Your task to perform on an android device: Open the Play Movies app and select the watchlist tab. Image 0: 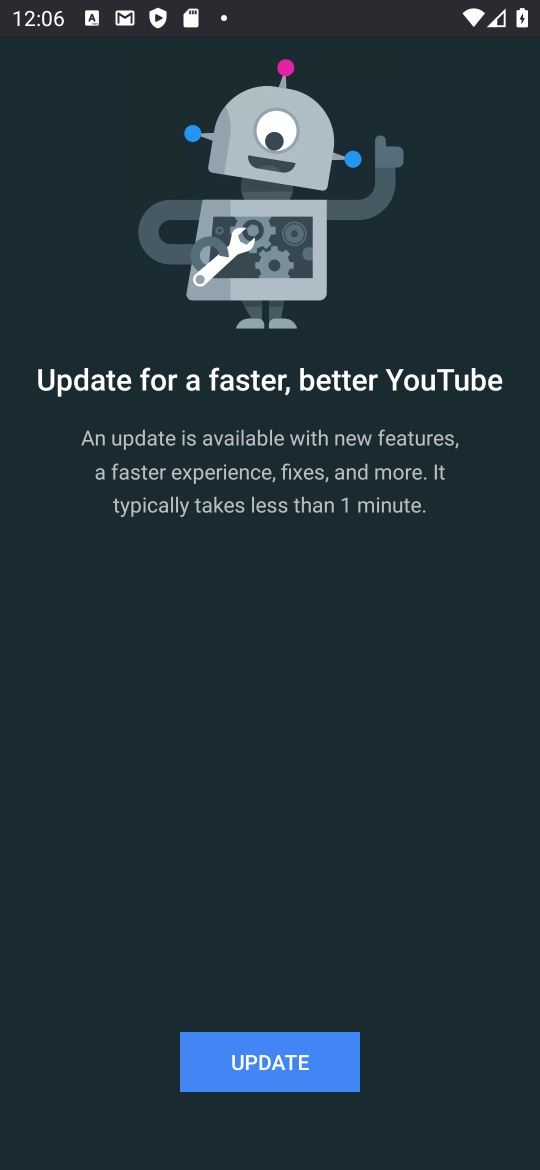
Step 0: press home button
Your task to perform on an android device: Open the Play Movies app and select the watchlist tab. Image 1: 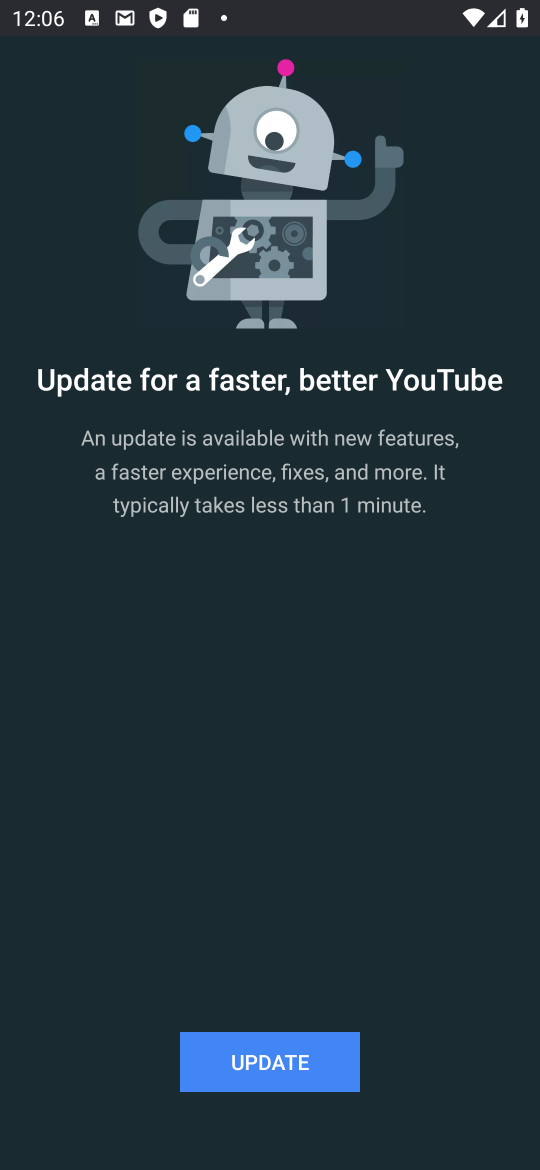
Step 1: press home button
Your task to perform on an android device: Open the Play Movies app and select the watchlist tab. Image 2: 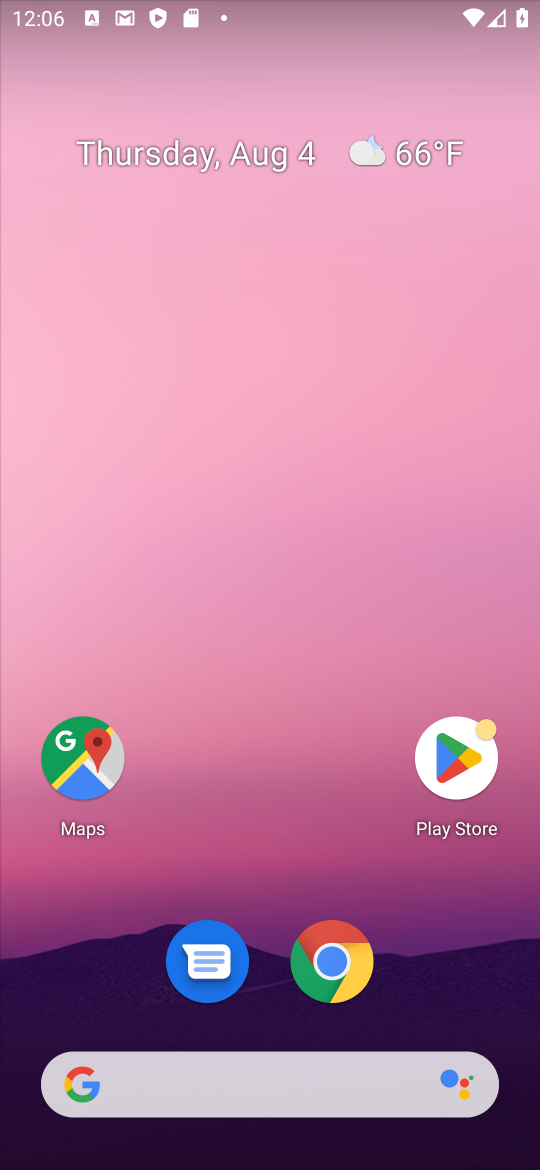
Step 2: drag from (307, 805) to (313, 142)
Your task to perform on an android device: Open the Play Movies app and select the watchlist tab. Image 3: 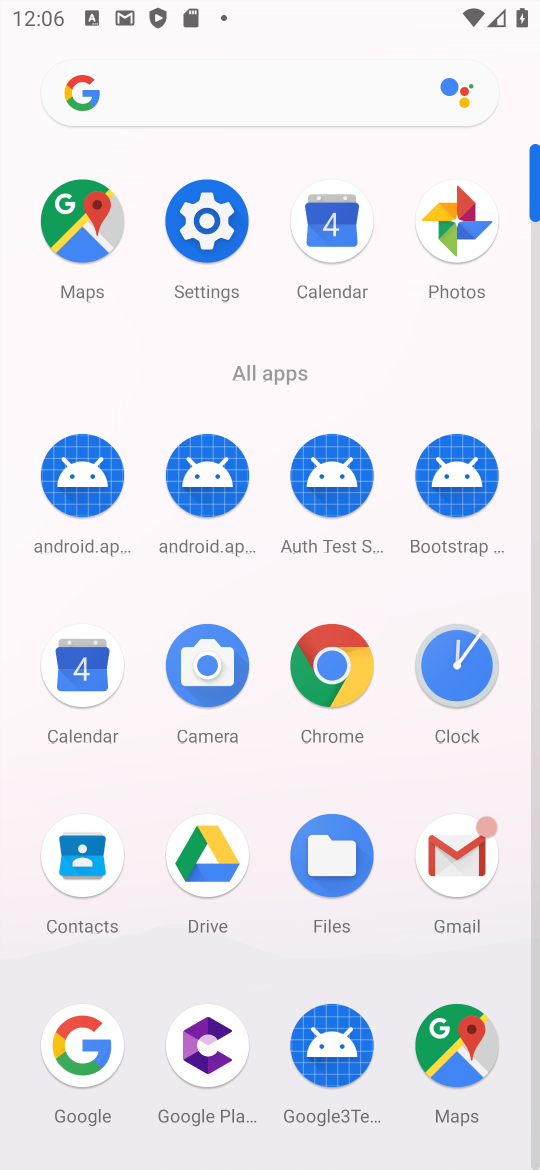
Step 3: drag from (401, 947) to (327, 256)
Your task to perform on an android device: Open the Play Movies app and select the watchlist tab. Image 4: 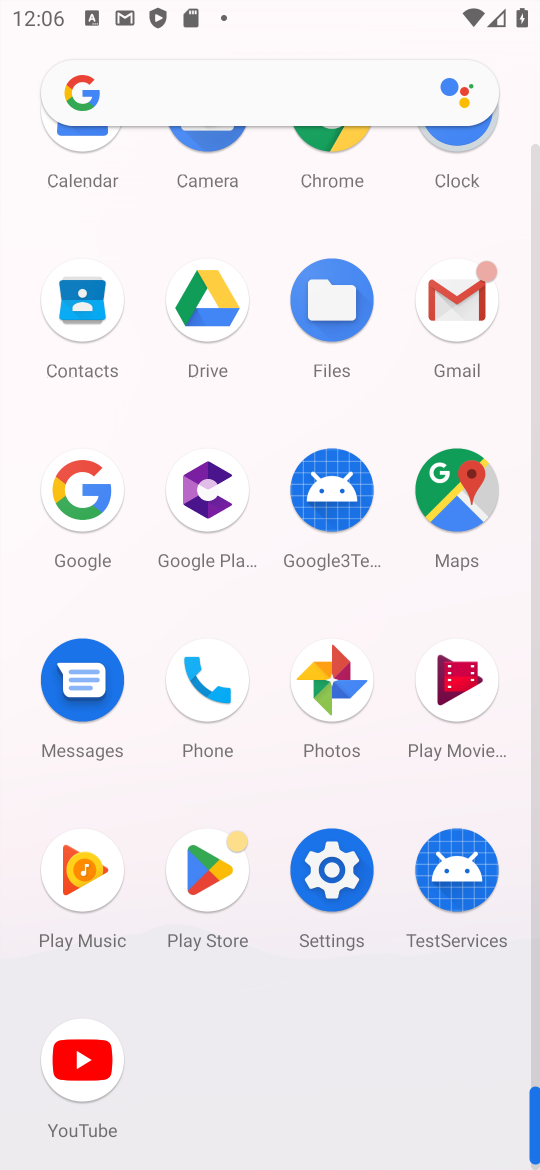
Step 4: click (448, 671)
Your task to perform on an android device: Open the Play Movies app and select the watchlist tab. Image 5: 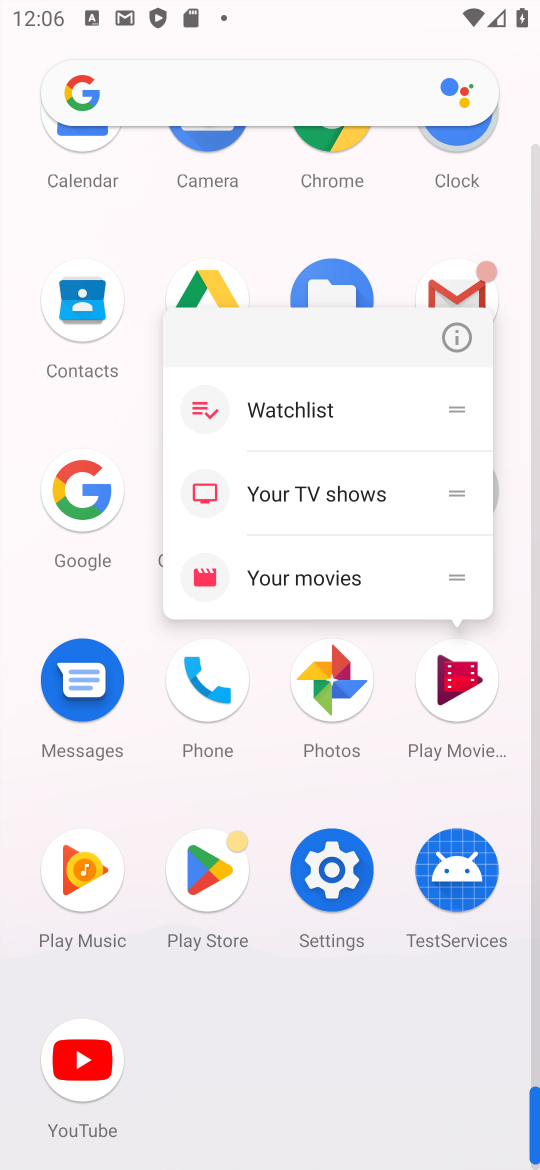
Step 5: click (450, 675)
Your task to perform on an android device: Open the Play Movies app and select the watchlist tab. Image 6: 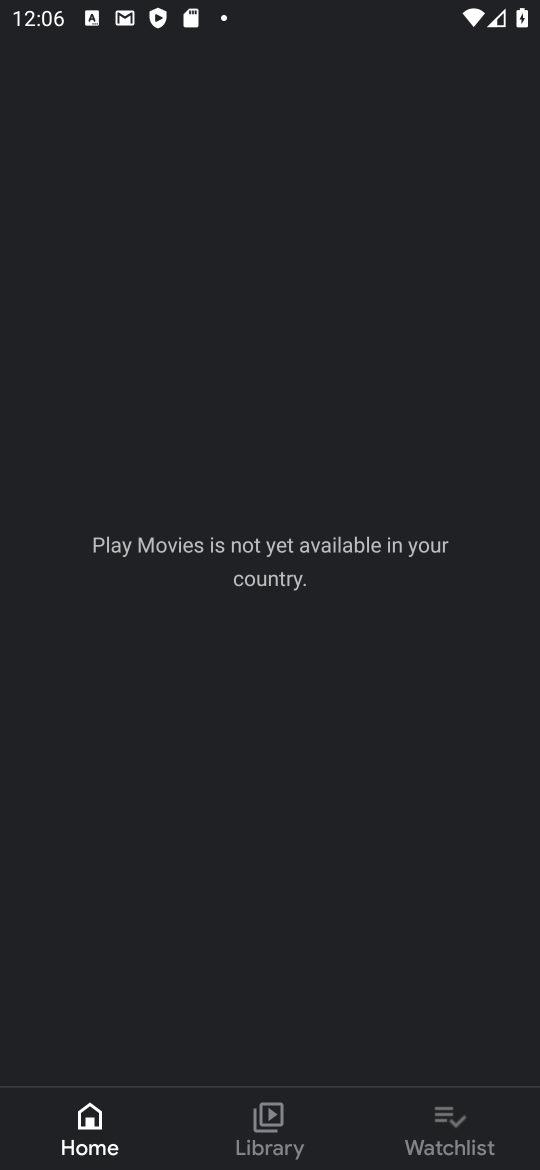
Step 6: click (454, 1135)
Your task to perform on an android device: Open the Play Movies app and select the watchlist tab. Image 7: 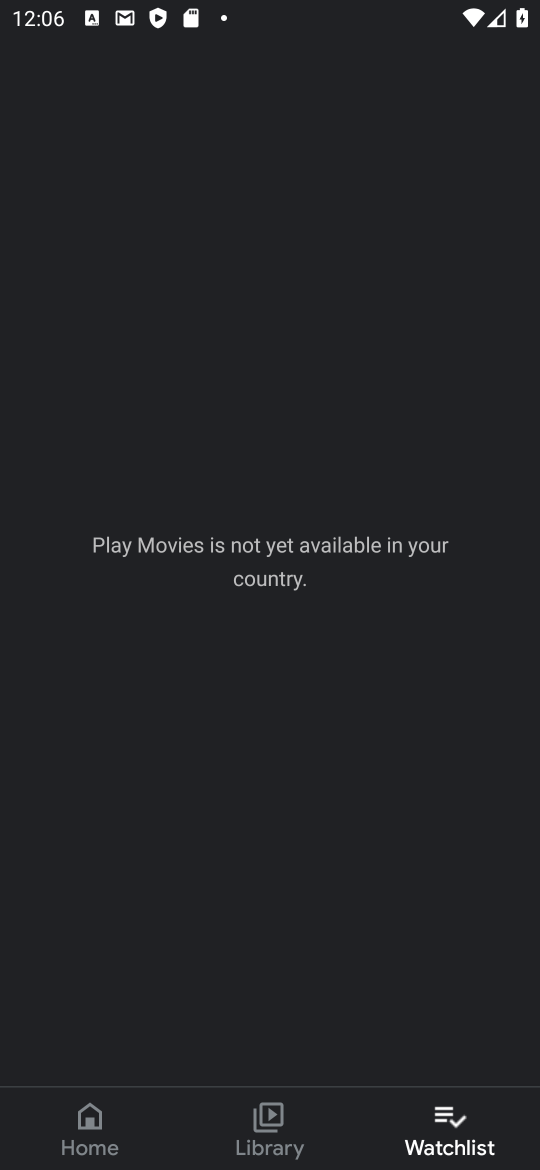
Step 7: task complete